Your task to perform on an android device: Go to eBay Image 0: 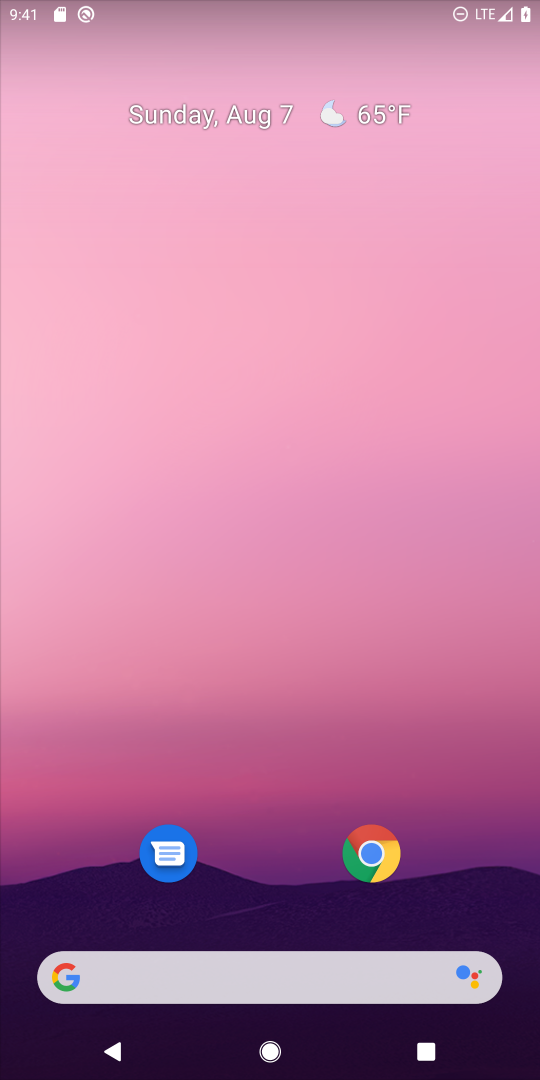
Step 0: drag from (265, 929) to (328, 412)
Your task to perform on an android device: Go to eBay Image 1: 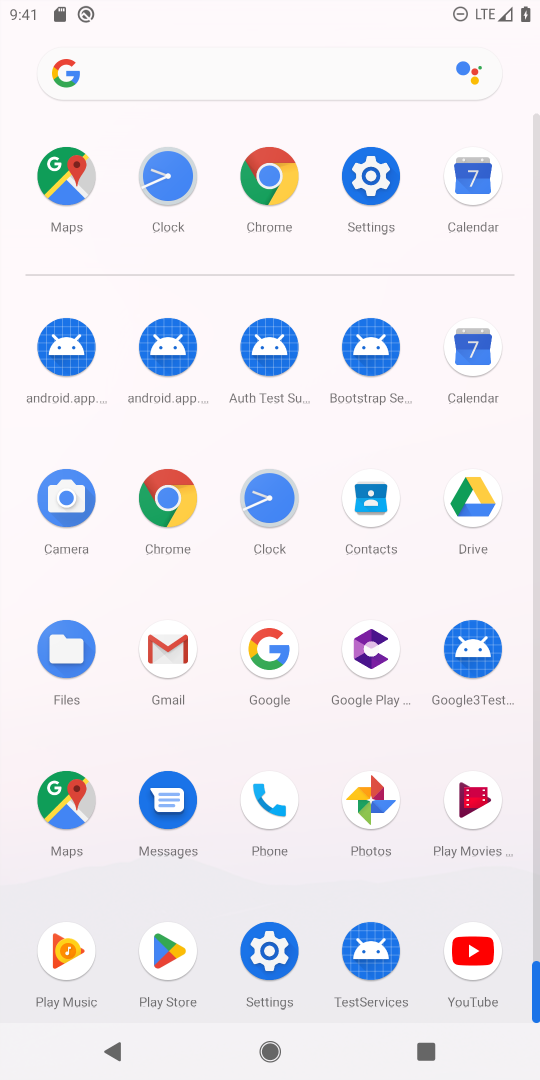
Step 1: click (148, 507)
Your task to perform on an android device: Go to eBay Image 2: 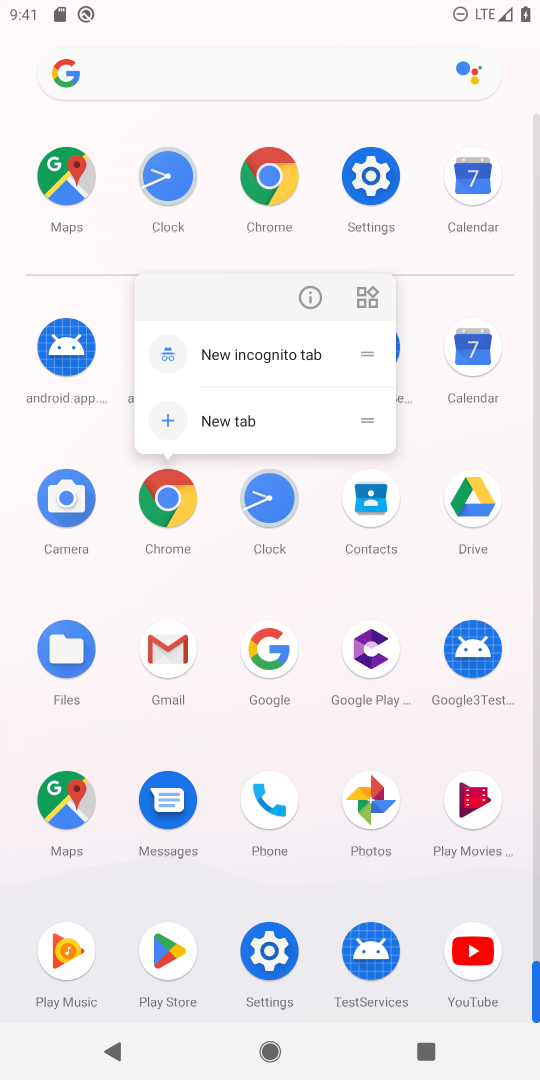
Step 2: click (153, 507)
Your task to perform on an android device: Go to eBay Image 3: 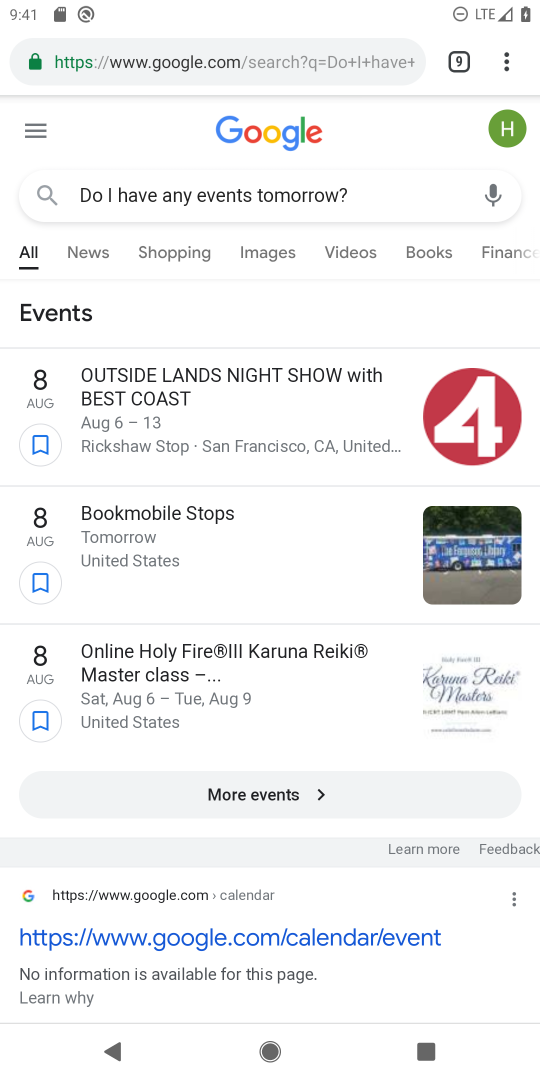
Step 3: click (509, 65)
Your task to perform on an android device: Go to eBay Image 4: 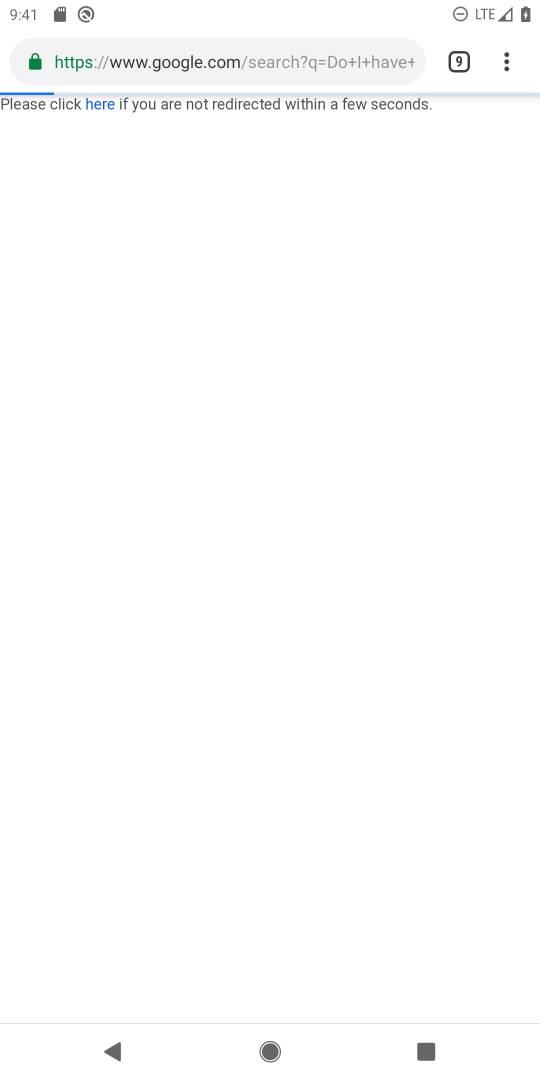
Step 4: click (509, 65)
Your task to perform on an android device: Go to eBay Image 5: 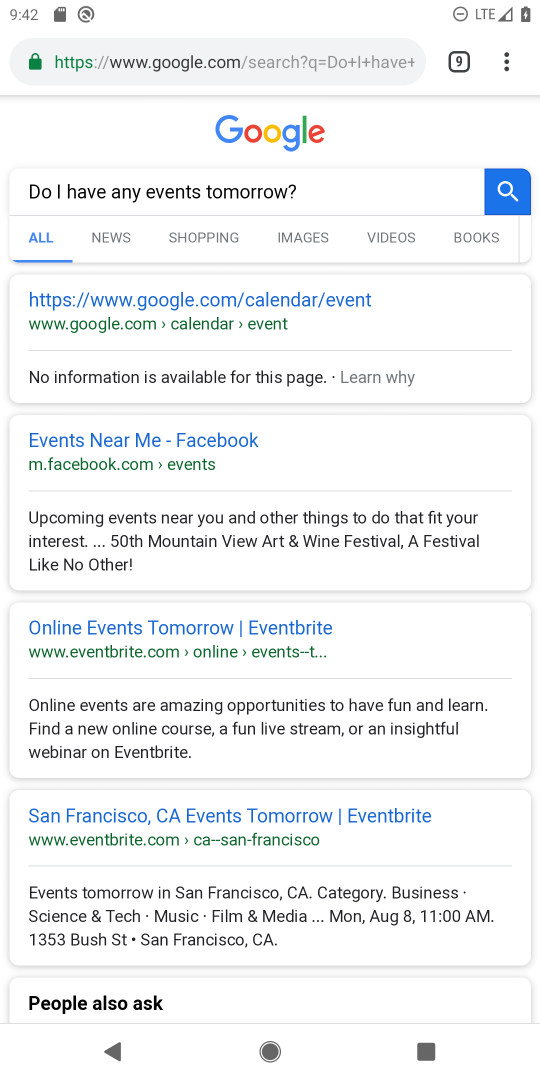
Step 5: click (507, 63)
Your task to perform on an android device: Go to eBay Image 6: 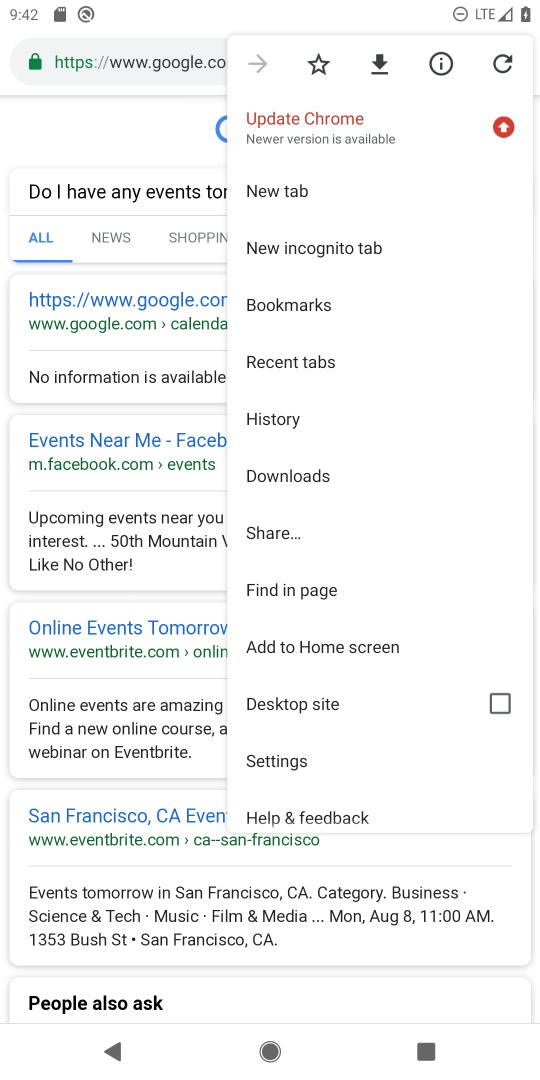
Step 6: click (302, 182)
Your task to perform on an android device: Go to eBay Image 7: 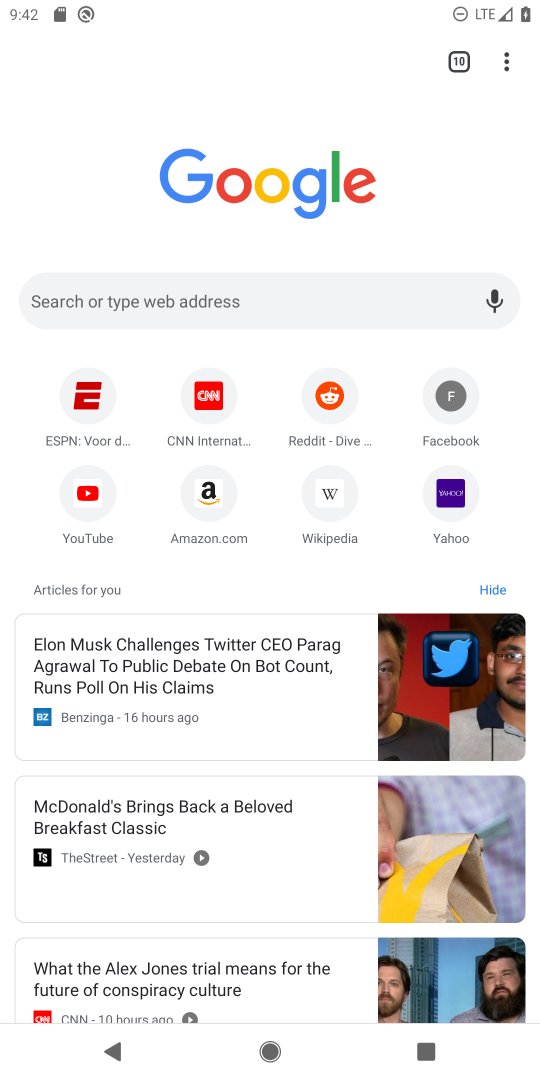
Step 7: click (319, 288)
Your task to perform on an android device: Go to eBay Image 8: 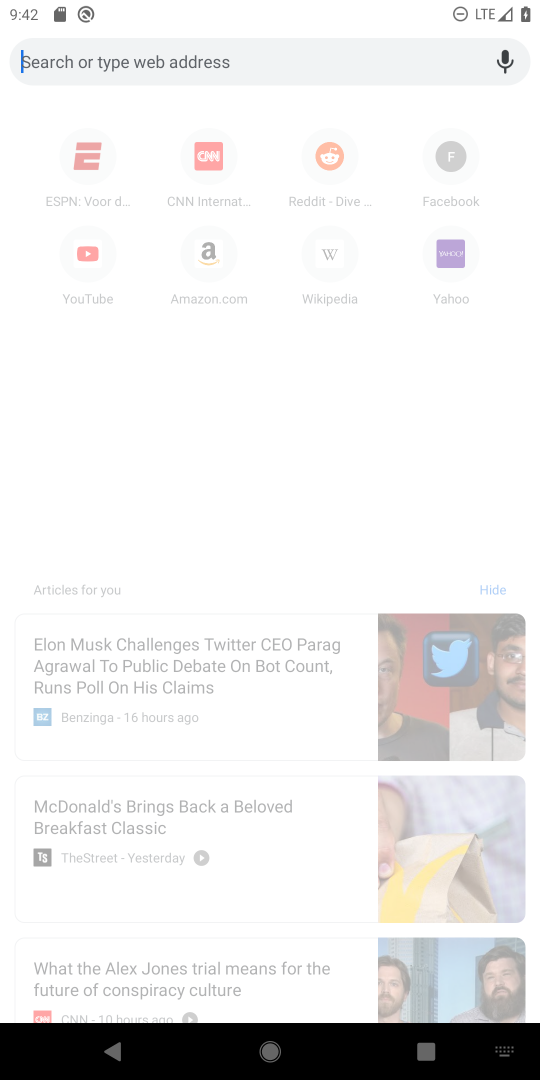
Step 8: type " eBay "
Your task to perform on an android device: Go to eBay Image 9: 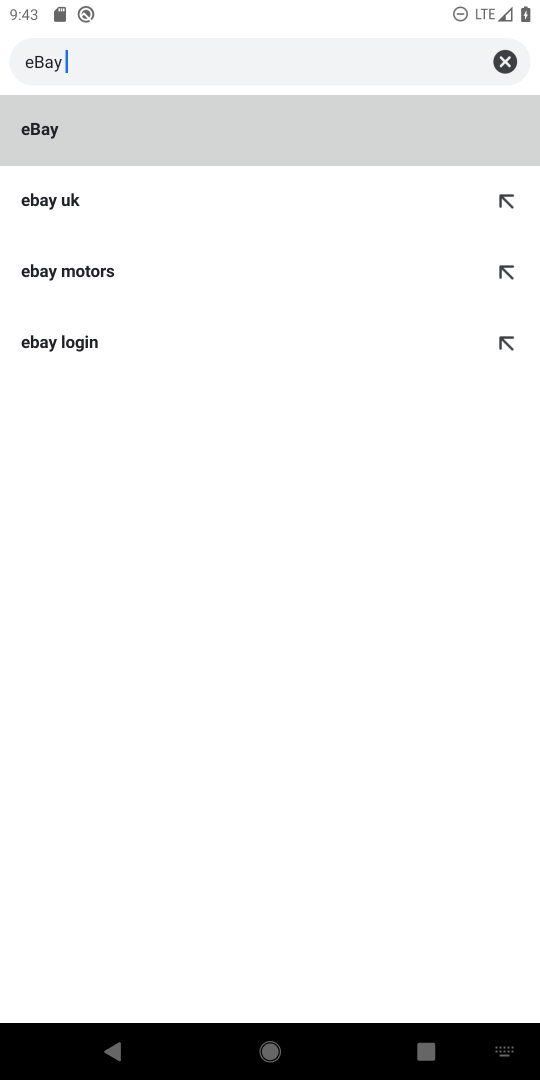
Step 9: click (290, 115)
Your task to perform on an android device: Go to eBay Image 10: 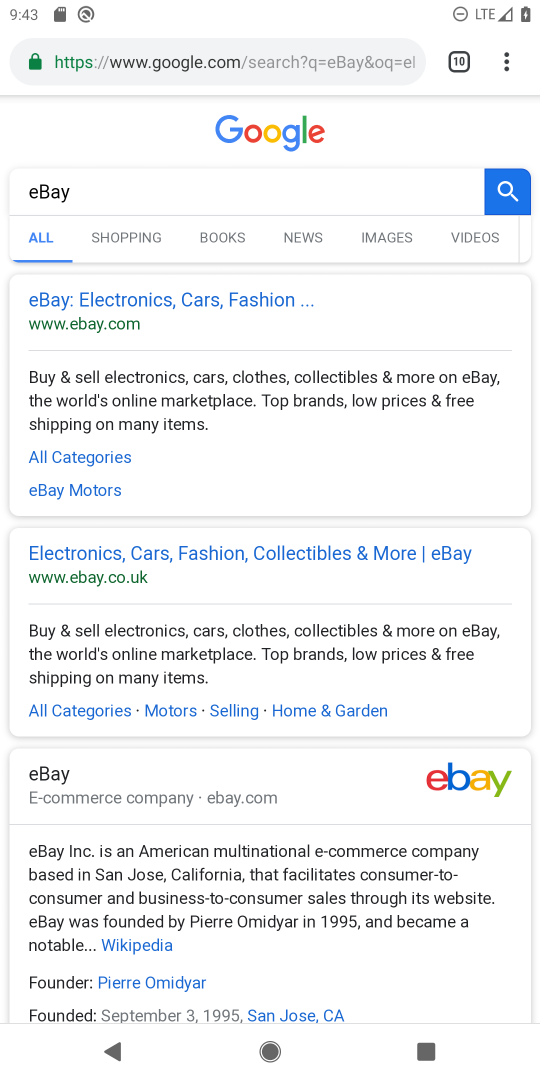
Step 10: task complete